Your task to perform on an android device: check the backup settings in the google photos Image 0: 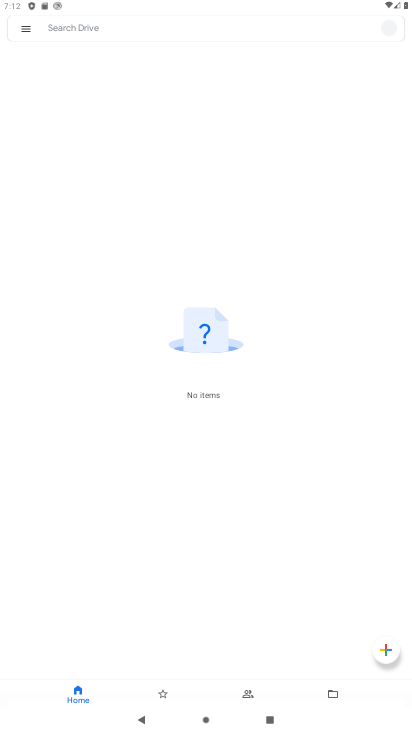
Step 0: press home button
Your task to perform on an android device: check the backup settings in the google photos Image 1: 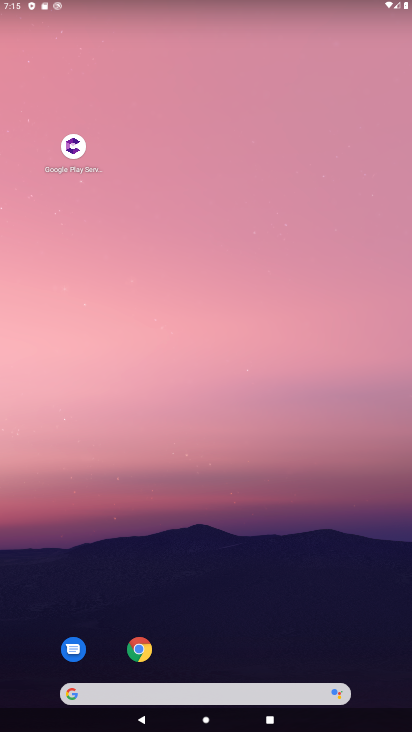
Step 1: drag from (294, 547) to (210, 233)
Your task to perform on an android device: check the backup settings in the google photos Image 2: 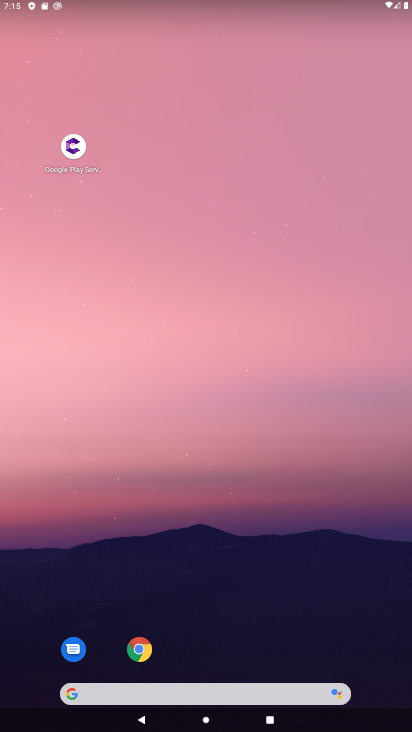
Step 2: drag from (210, 534) to (242, 80)
Your task to perform on an android device: check the backup settings in the google photos Image 3: 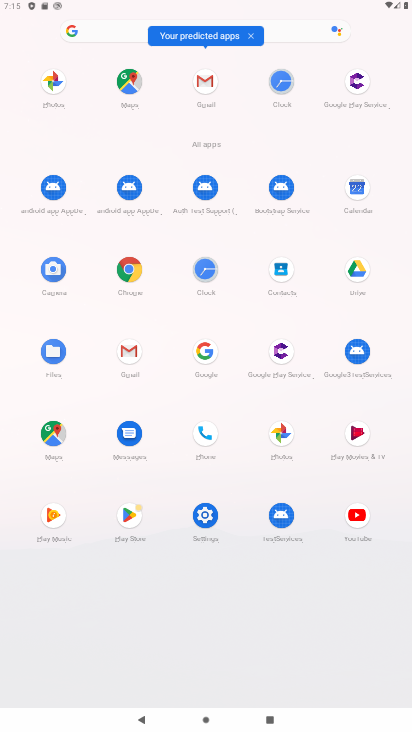
Step 3: click (288, 436)
Your task to perform on an android device: check the backup settings in the google photos Image 4: 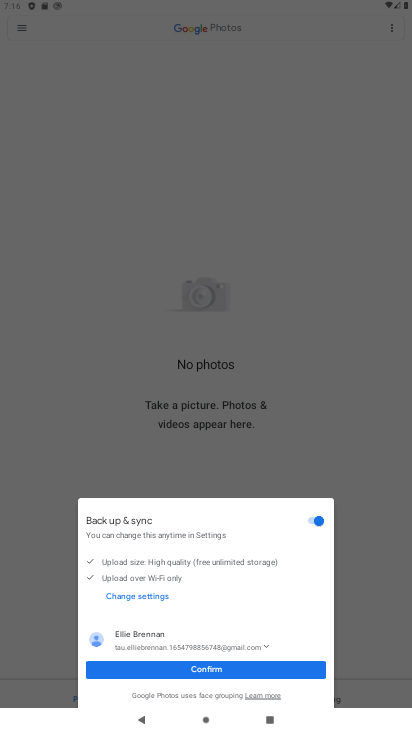
Step 4: click (233, 675)
Your task to perform on an android device: check the backup settings in the google photos Image 5: 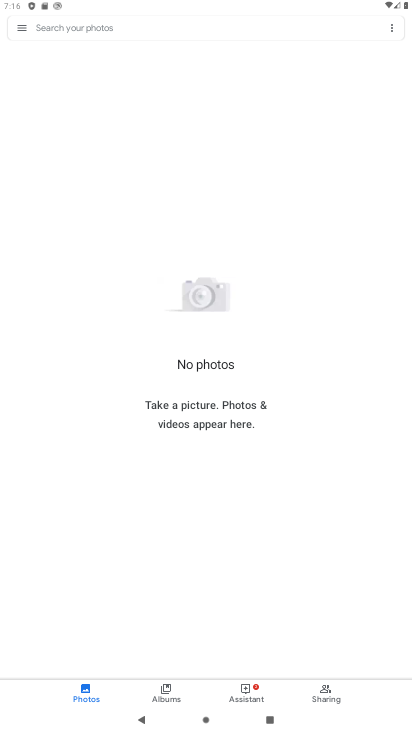
Step 5: task complete